Your task to perform on an android device: open wifi settings Image 0: 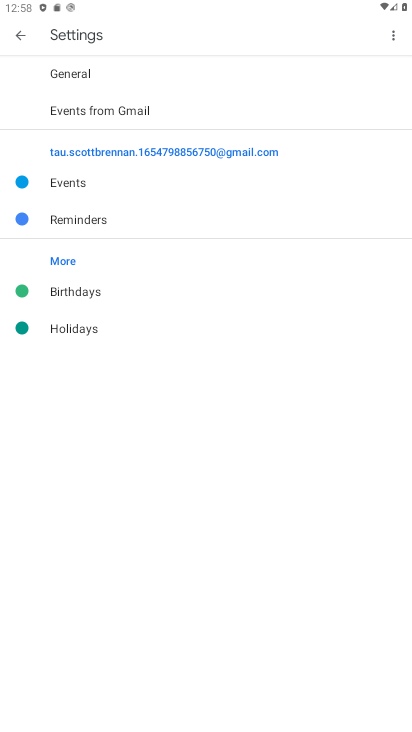
Step 0: task complete